Your task to perform on an android device: see tabs open on other devices in the chrome app Image 0: 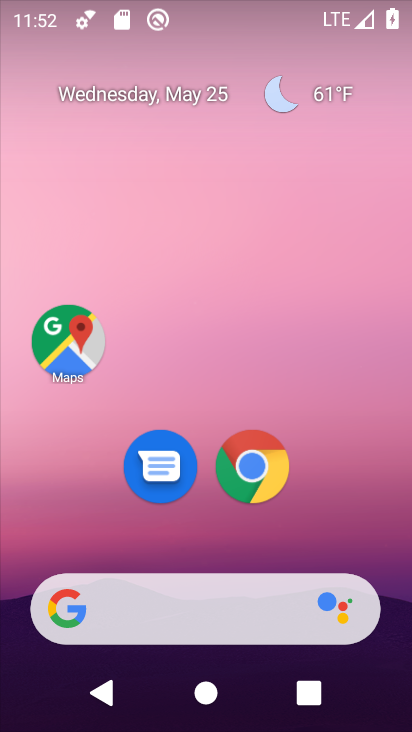
Step 0: drag from (194, 541) to (277, 37)
Your task to perform on an android device: see tabs open on other devices in the chrome app Image 1: 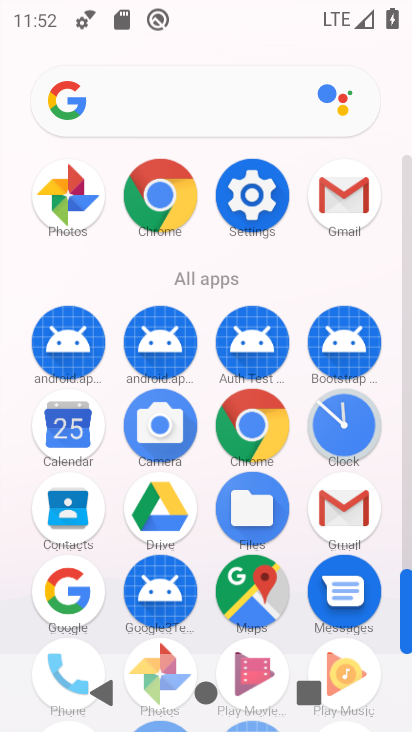
Step 1: click (252, 425)
Your task to perform on an android device: see tabs open on other devices in the chrome app Image 2: 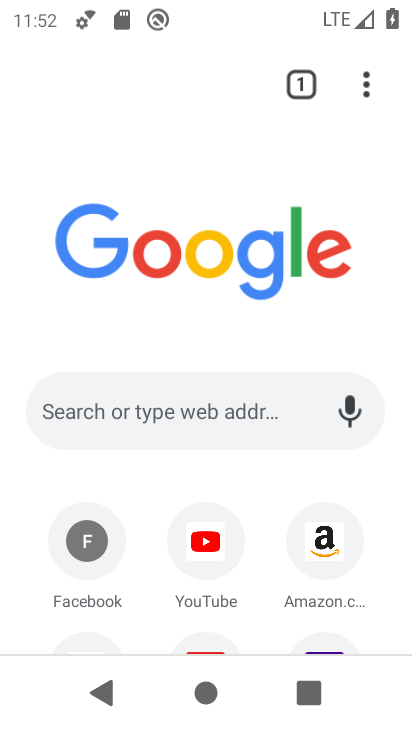
Step 2: click (364, 79)
Your task to perform on an android device: see tabs open on other devices in the chrome app Image 3: 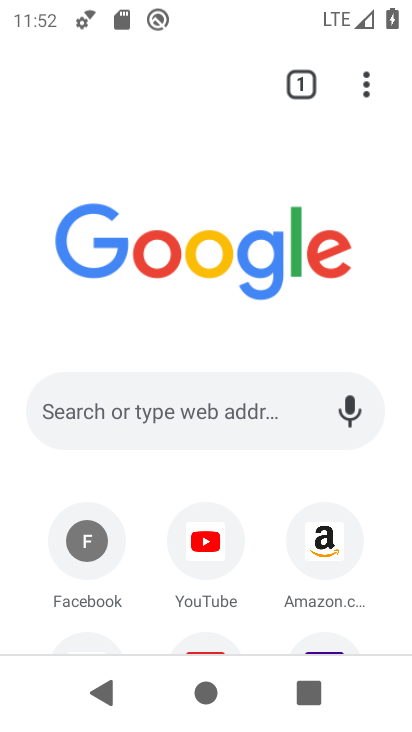
Step 3: click (381, 94)
Your task to perform on an android device: see tabs open on other devices in the chrome app Image 4: 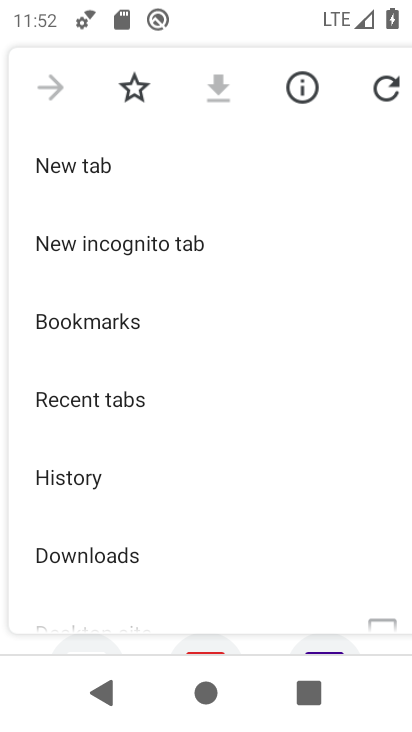
Step 4: drag from (118, 455) to (142, 324)
Your task to perform on an android device: see tabs open on other devices in the chrome app Image 5: 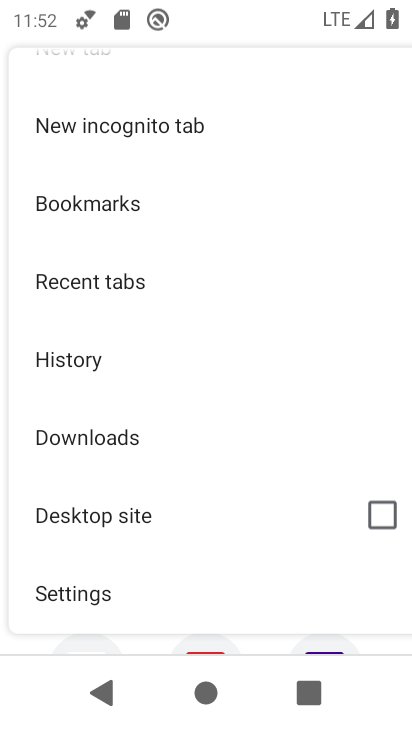
Step 5: drag from (86, 530) to (105, 464)
Your task to perform on an android device: see tabs open on other devices in the chrome app Image 6: 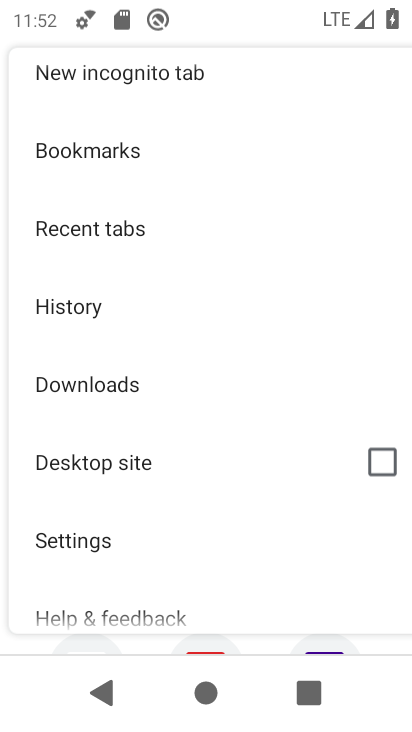
Step 6: click (132, 239)
Your task to perform on an android device: see tabs open on other devices in the chrome app Image 7: 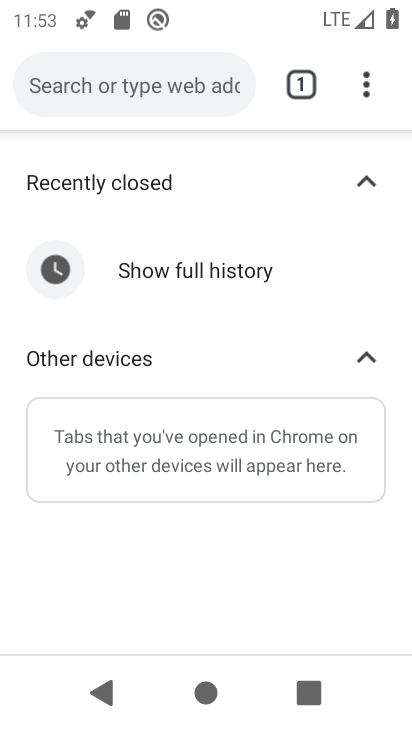
Step 7: task complete